Your task to perform on an android device: change your default location settings in chrome Image 0: 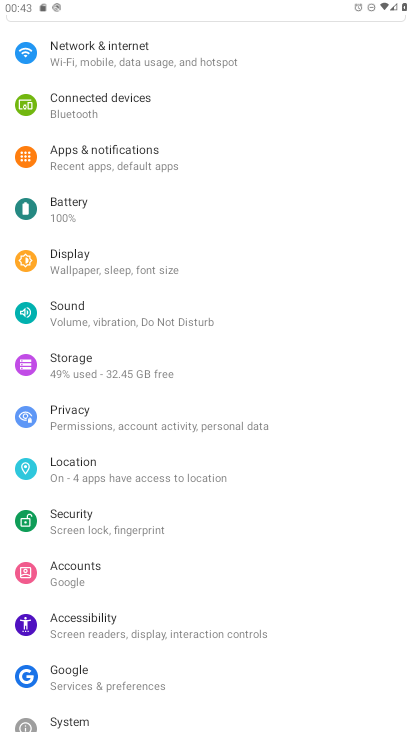
Step 0: click (89, 472)
Your task to perform on an android device: change your default location settings in chrome Image 1: 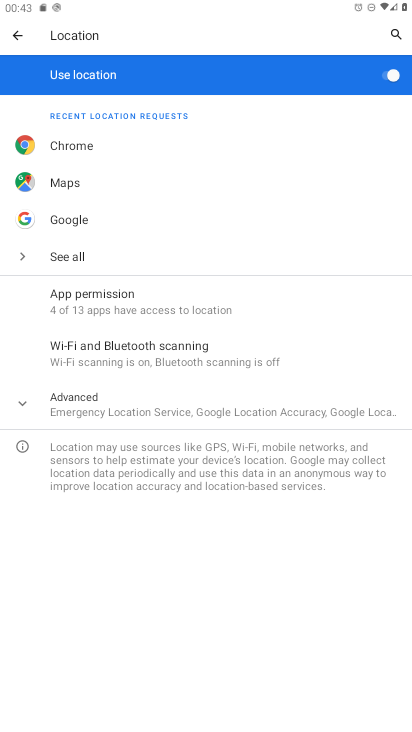
Step 1: task complete